Your task to perform on an android device: View the shopping cart on amazon. Add usb-a to usb-b to the cart on amazon, then select checkout. Image 0: 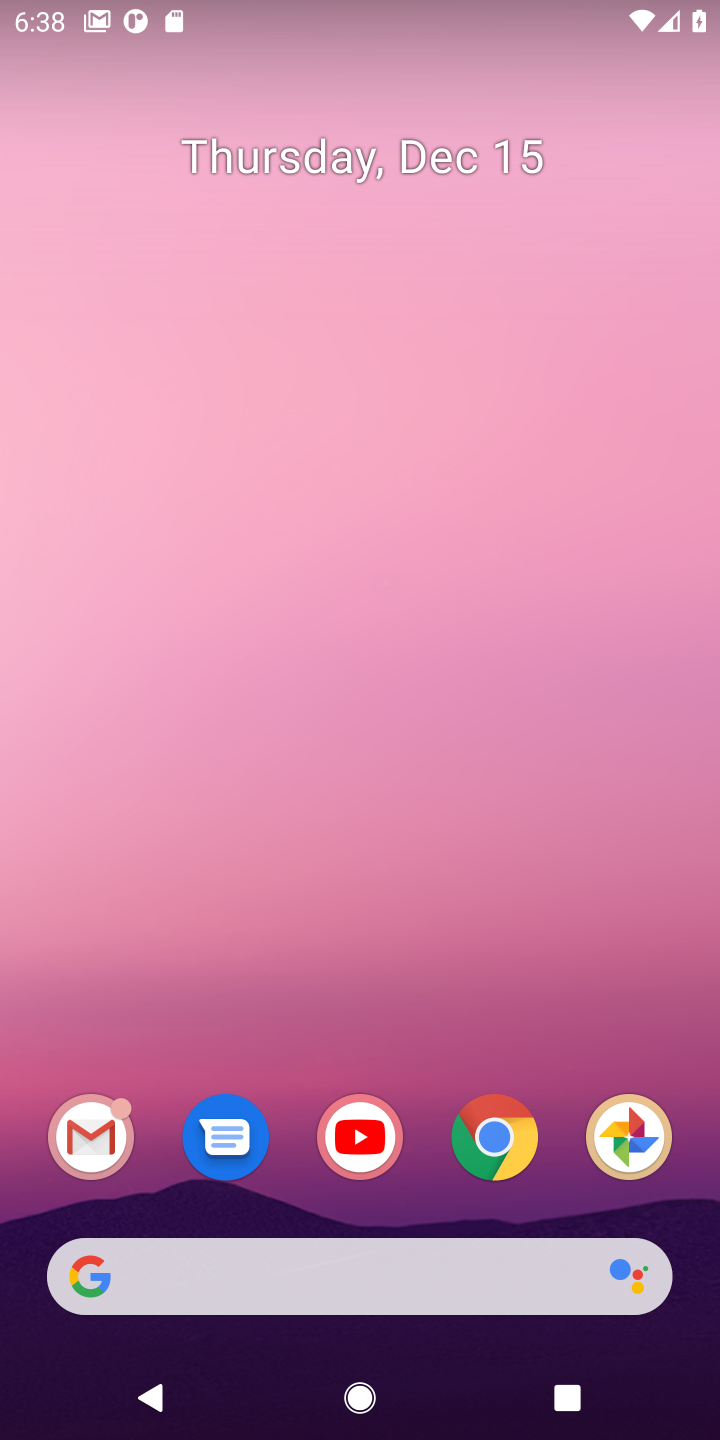
Step 0: click (332, 893)
Your task to perform on an android device: View the shopping cart on amazon. Add usb-a to usb-b to the cart on amazon, then select checkout. Image 1: 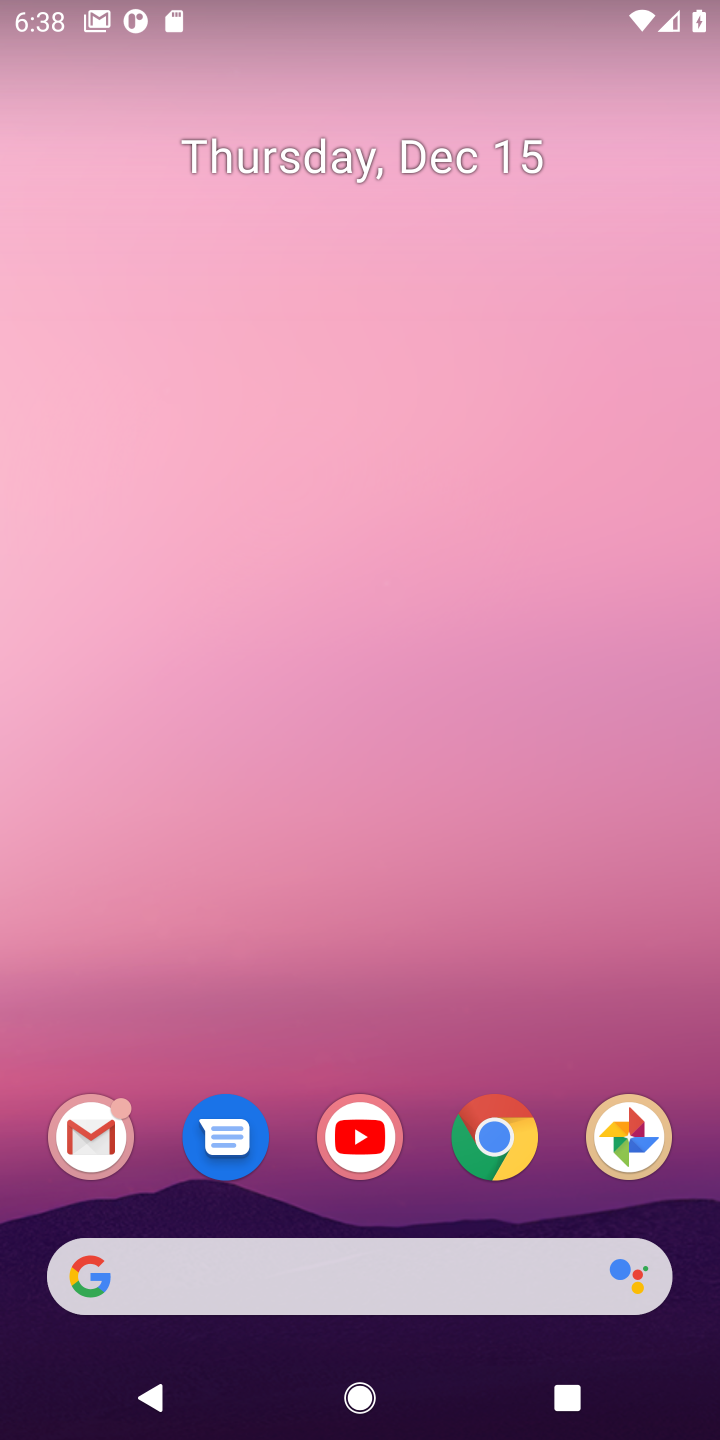
Step 1: drag from (255, 1132) to (261, 84)
Your task to perform on an android device: View the shopping cart on amazon. Add usb-a to usb-b to the cart on amazon, then select checkout. Image 2: 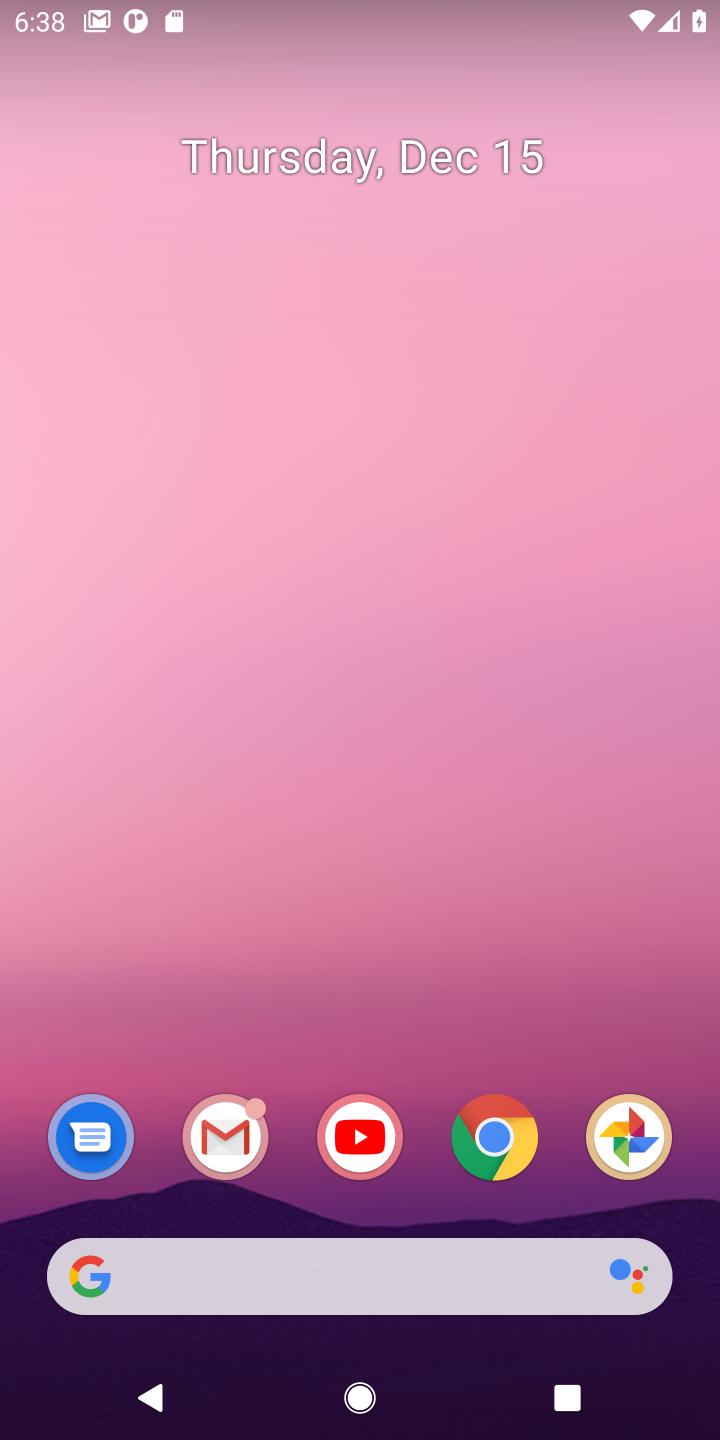
Step 2: drag from (328, 1189) to (312, 401)
Your task to perform on an android device: View the shopping cart on amazon. Add usb-a to usb-b to the cart on amazon, then select checkout. Image 3: 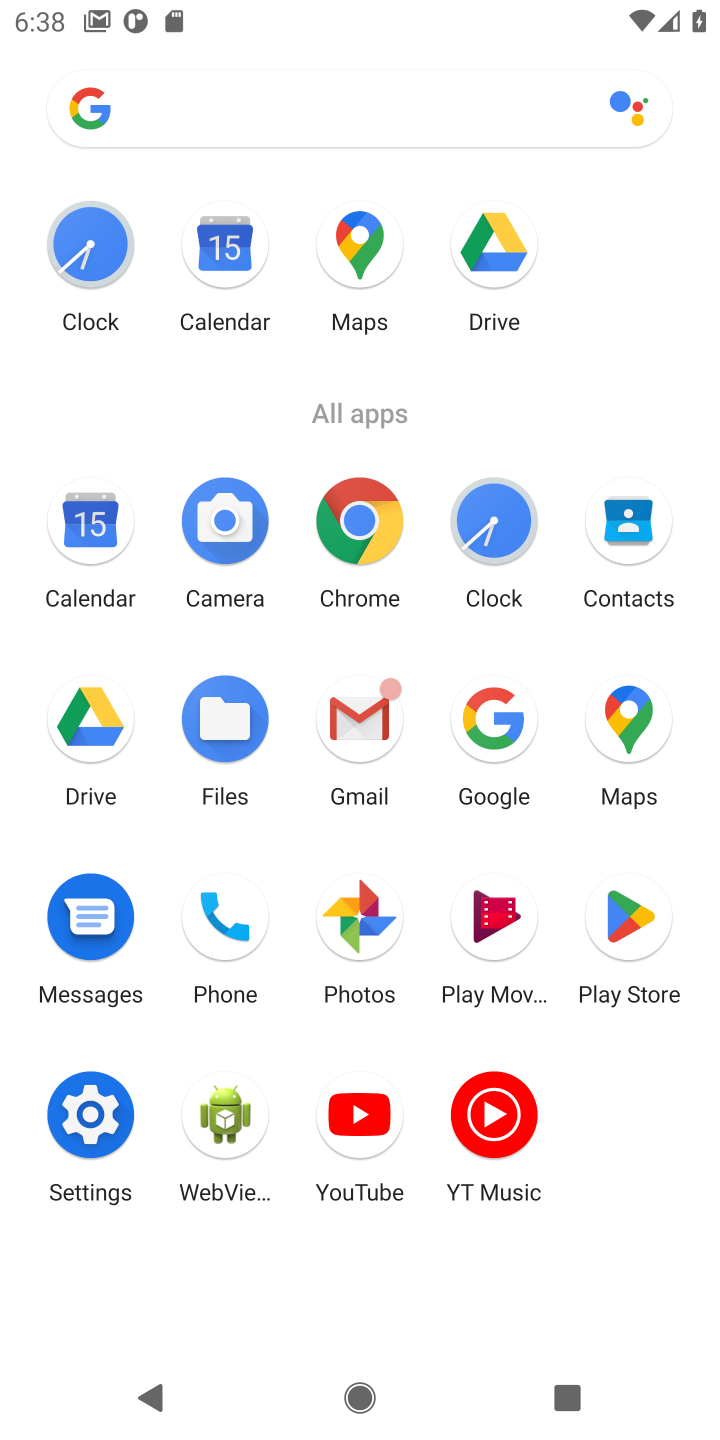
Step 3: click (497, 704)
Your task to perform on an android device: View the shopping cart on amazon. Add usb-a to usb-b to the cart on amazon, then select checkout. Image 4: 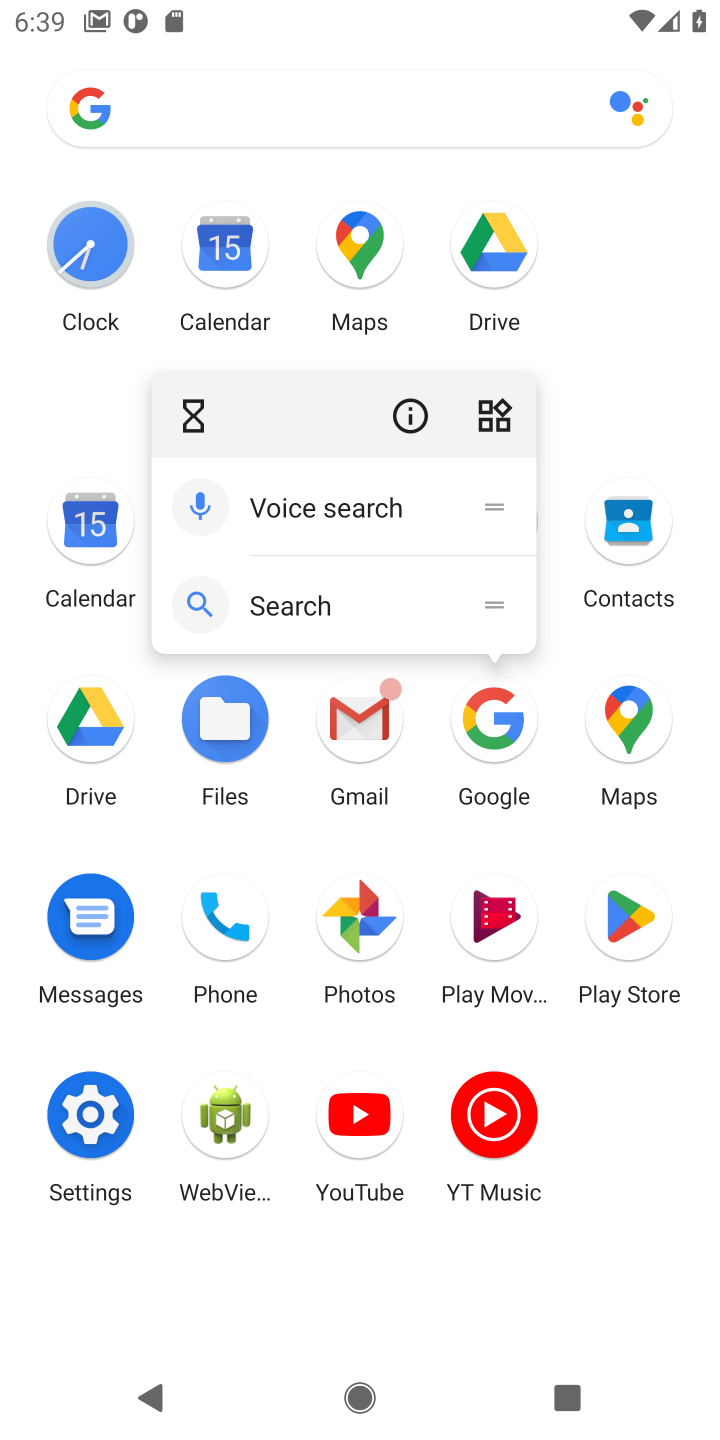
Step 4: press home button
Your task to perform on an android device: View the shopping cart on amazon. Add usb-a to usb-b to the cart on amazon, then select checkout. Image 5: 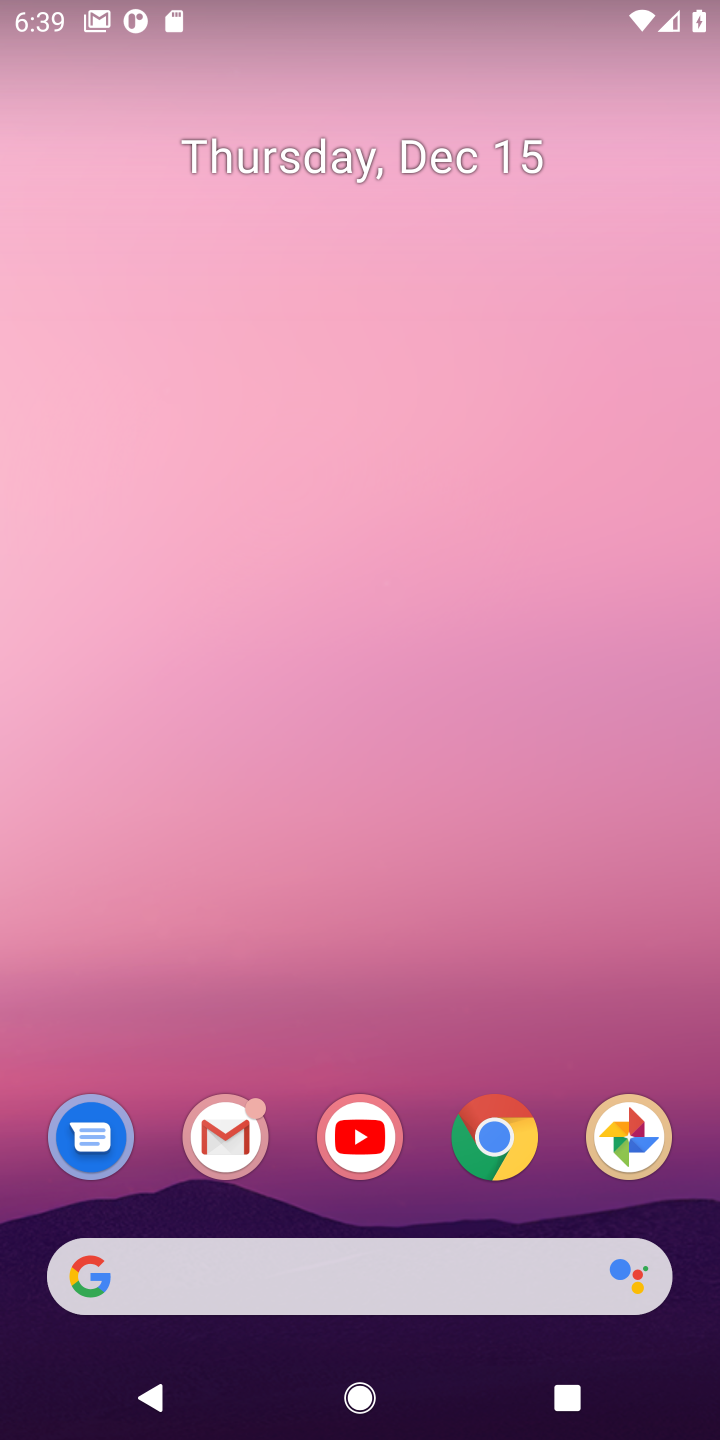
Step 5: drag from (312, 1110) to (381, 183)
Your task to perform on an android device: View the shopping cart on amazon. Add usb-a to usb-b to the cart on amazon, then select checkout. Image 6: 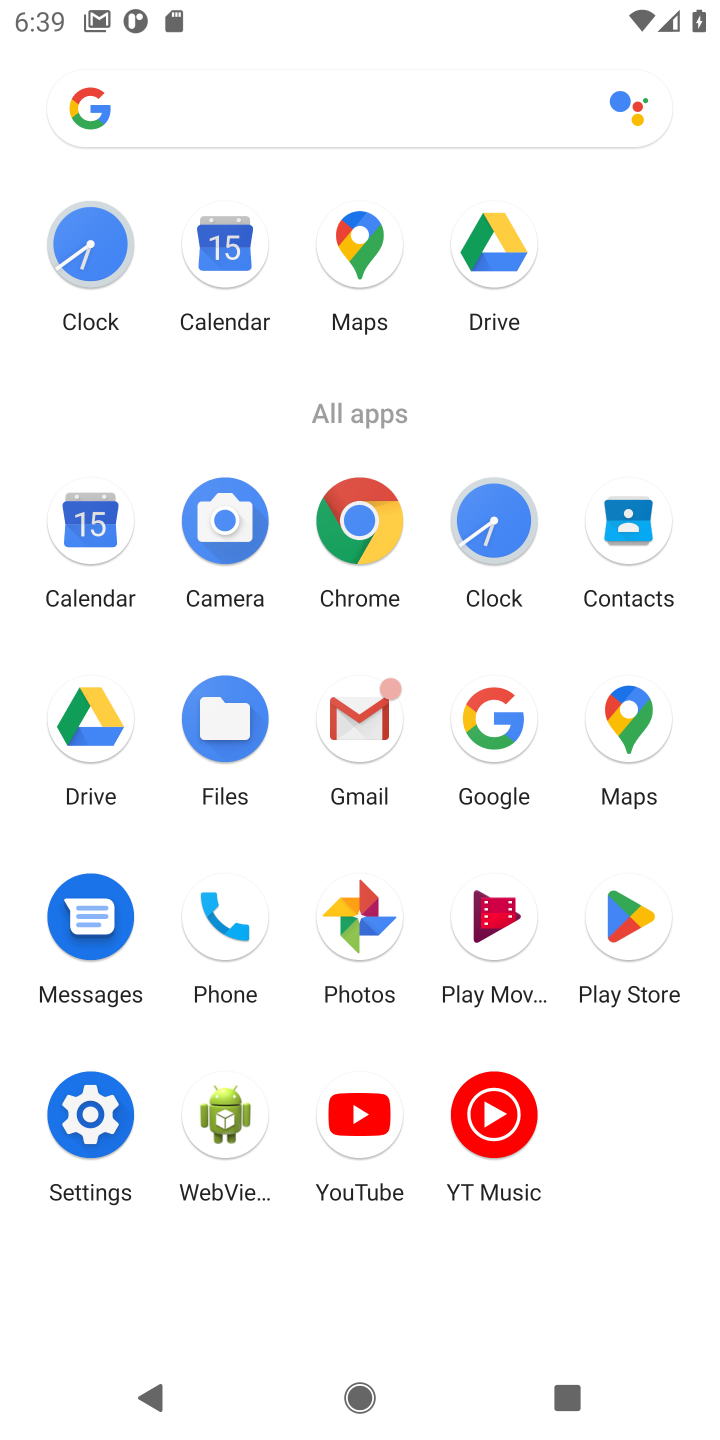
Step 6: click (481, 717)
Your task to perform on an android device: View the shopping cart on amazon. Add usb-a to usb-b to the cart on amazon, then select checkout. Image 7: 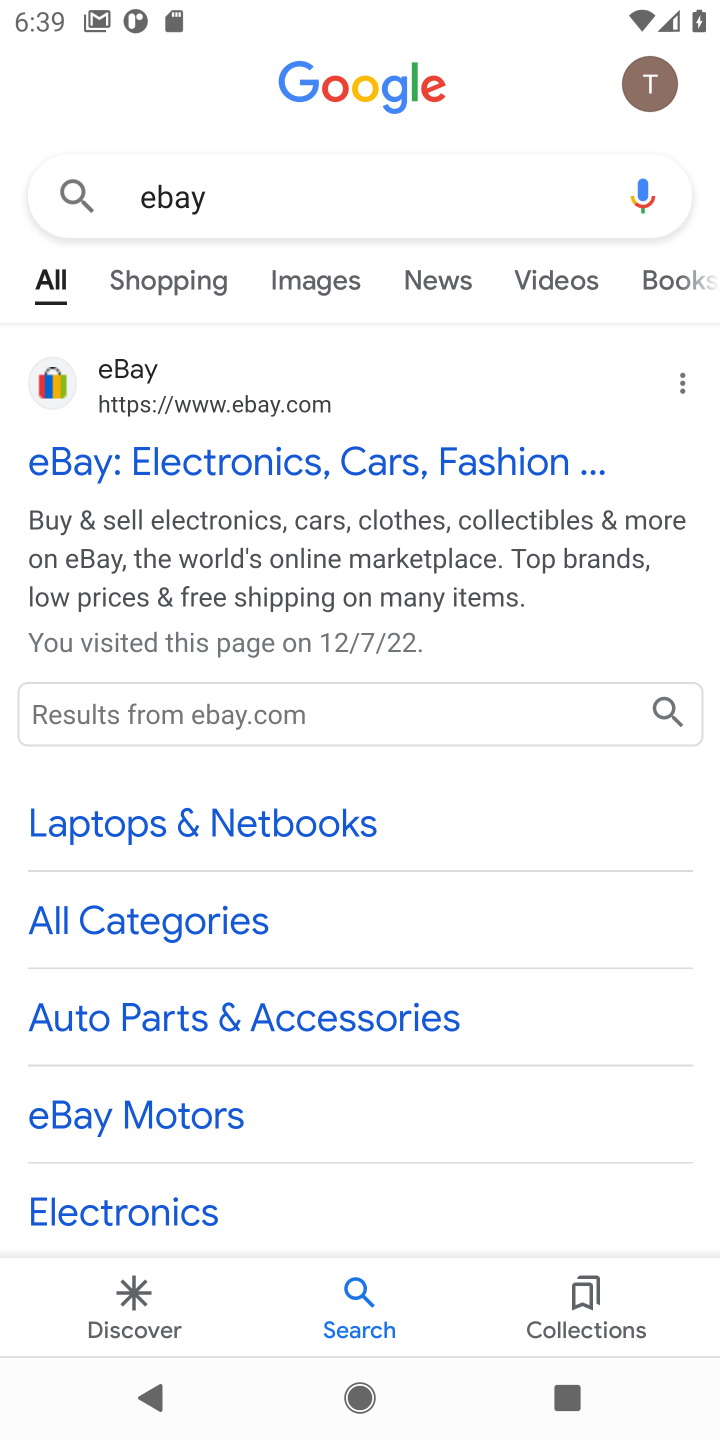
Step 7: click (173, 192)
Your task to perform on an android device: View the shopping cart on amazon. Add usb-a to usb-b to the cart on amazon, then select checkout. Image 8: 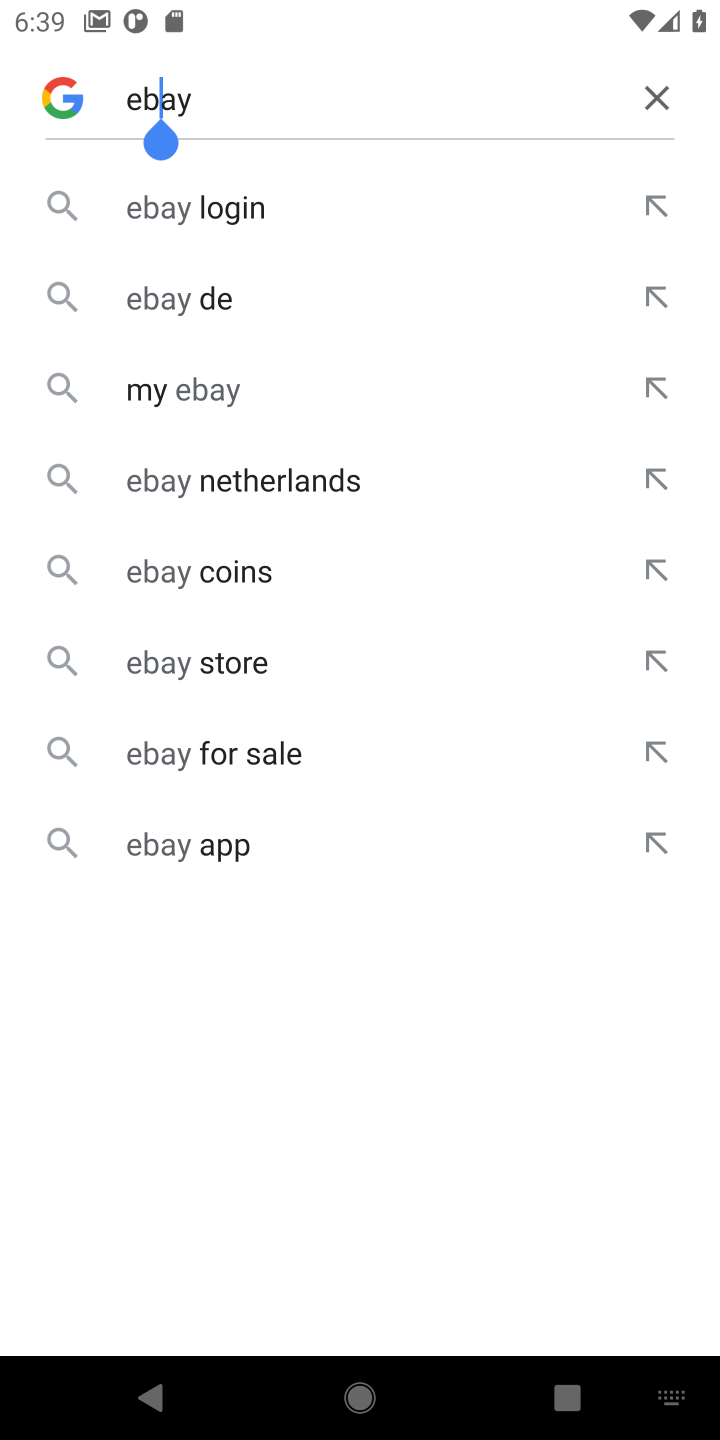
Step 8: click (648, 111)
Your task to perform on an android device: View the shopping cart on amazon. Add usb-a to usb-b to the cart on amazon, then select checkout. Image 9: 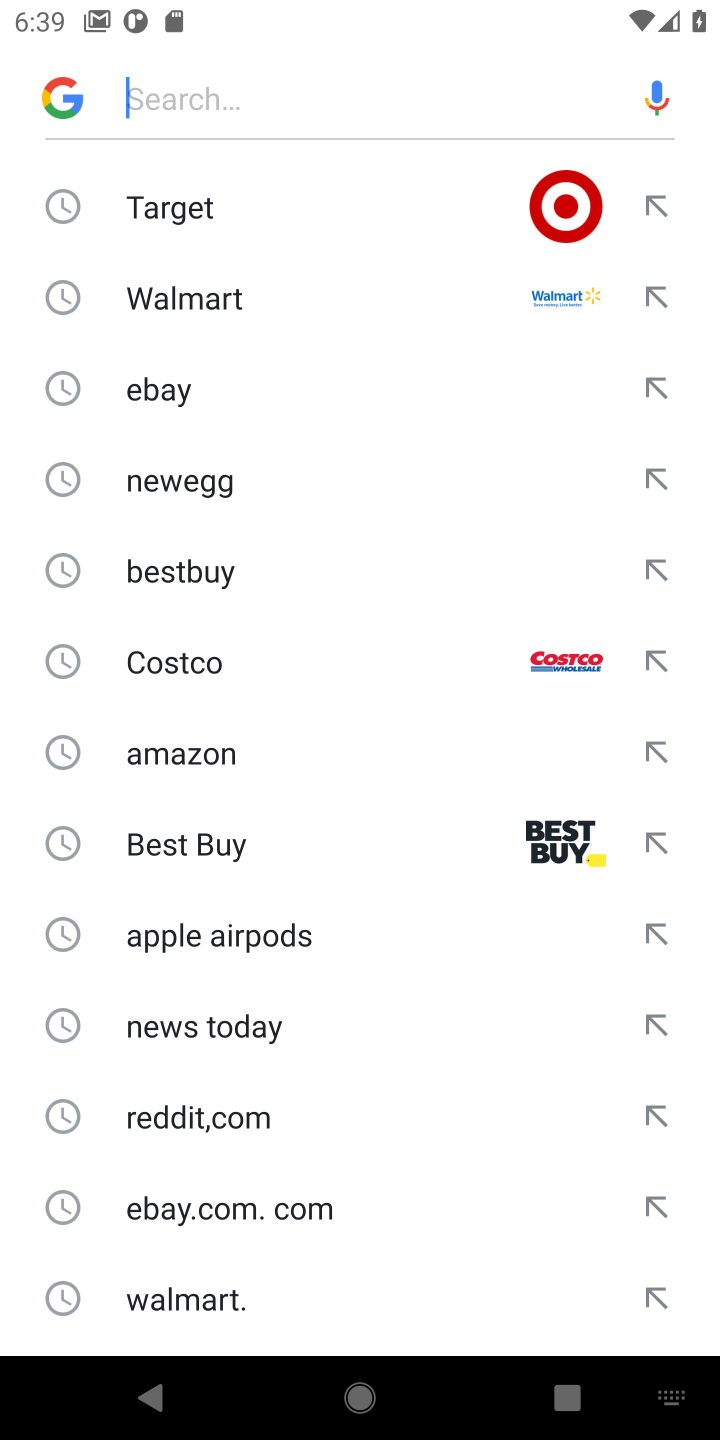
Step 9: click (173, 749)
Your task to perform on an android device: View the shopping cart on amazon. Add usb-a to usb-b to the cart on amazon, then select checkout. Image 10: 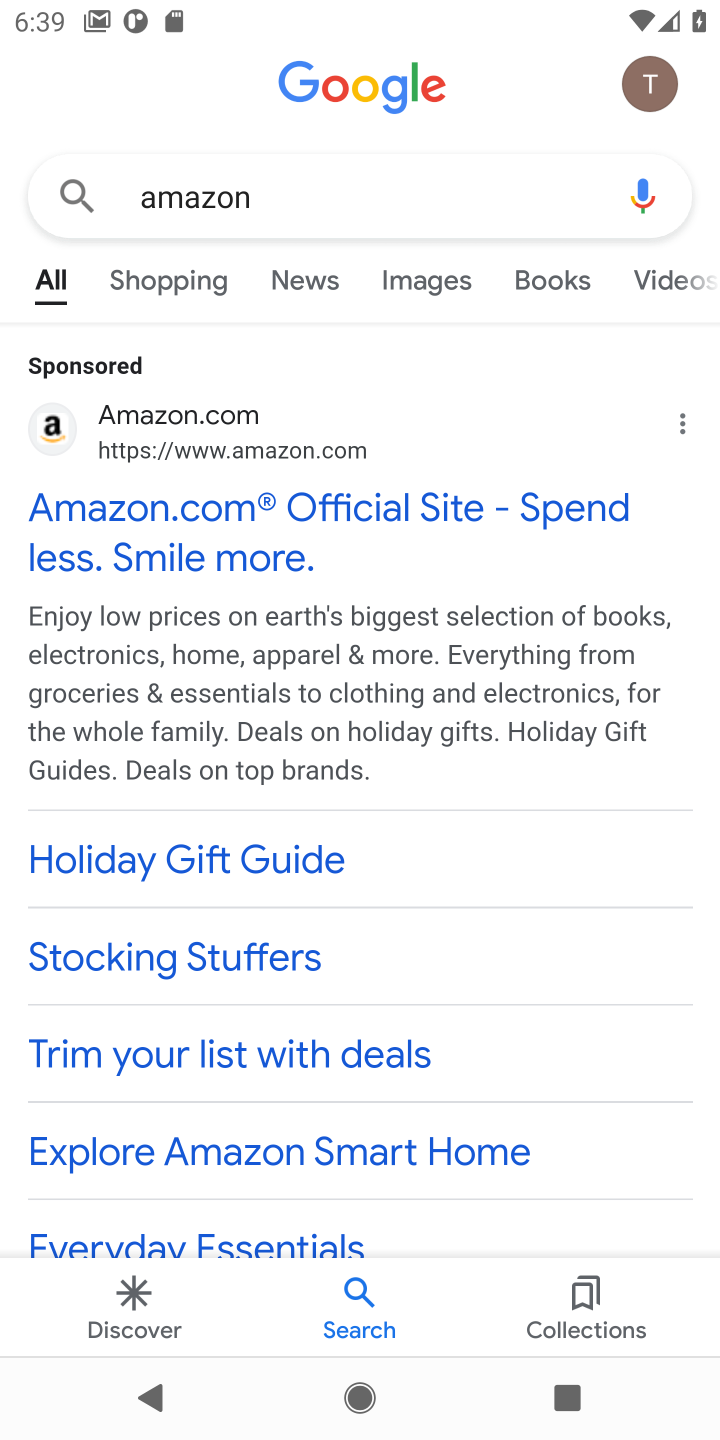
Step 10: click (152, 530)
Your task to perform on an android device: View the shopping cart on amazon. Add usb-a to usb-b to the cart on amazon, then select checkout. Image 11: 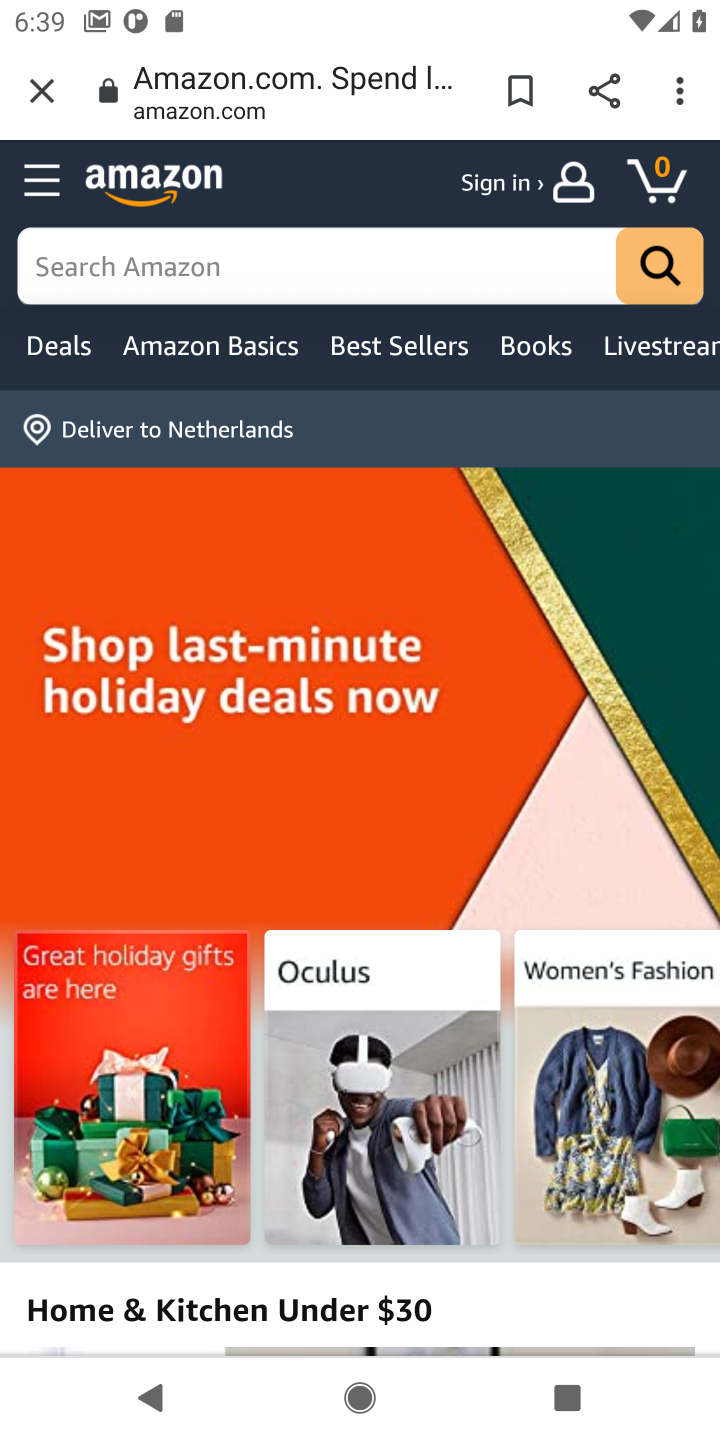
Step 11: click (669, 175)
Your task to perform on an android device: View the shopping cart on amazon. Add usb-a to usb-b to the cart on amazon, then select checkout. Image 12: 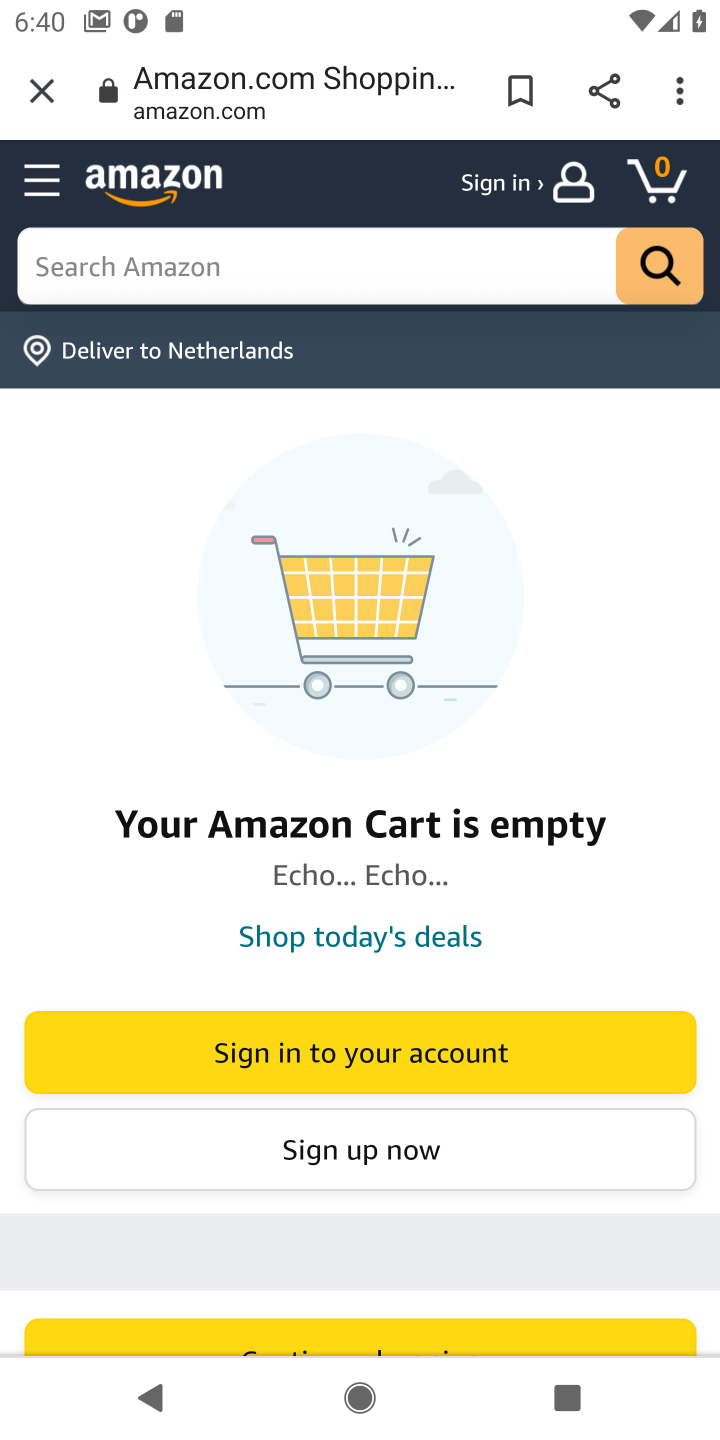
Step 12: click (90, 287)
Your task to perform on an android device: View the shopping cart on amazon. Add usb-a to usb-b to the cart on amazon, then select checkout. Image 13: 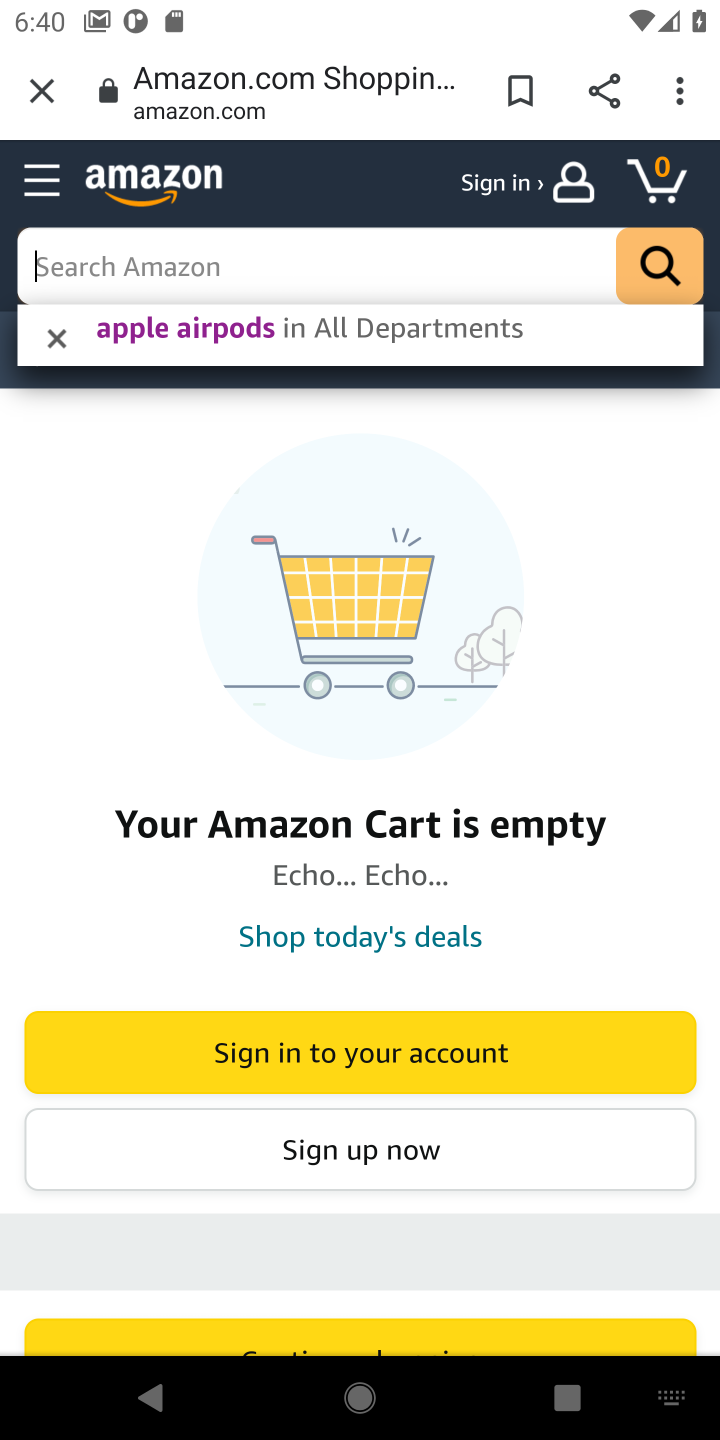
Step 13: type "usb-a to usb-b"
Your task to perform on an android device: View the shopping cart on amazon. Add usb-a to usb-b to the cart on amazon, then select checkout. Image 14: 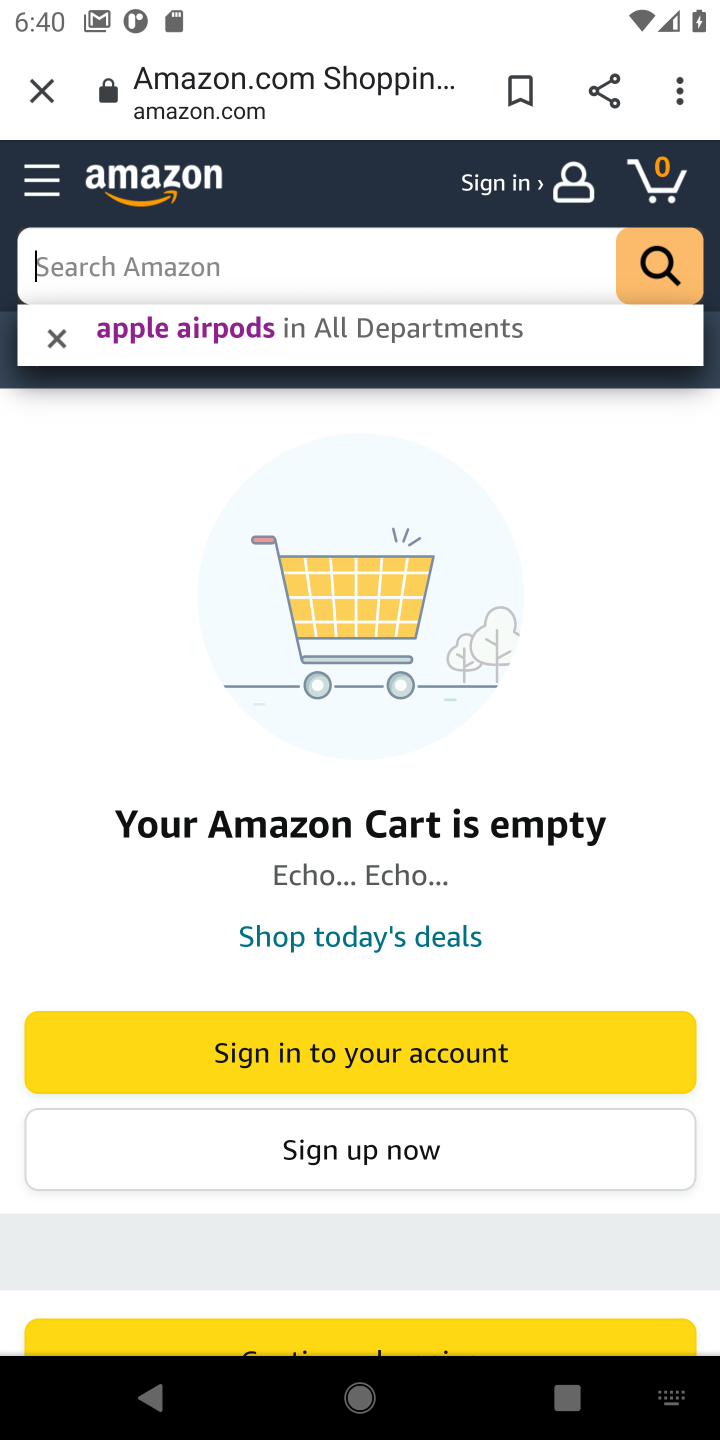
Step 14: click (655, 260)
Your task to perform on an android device: View the shopping cart on amazon. Add usb-a to usb-b to the cart on amazon, then select checkout. Image 15: 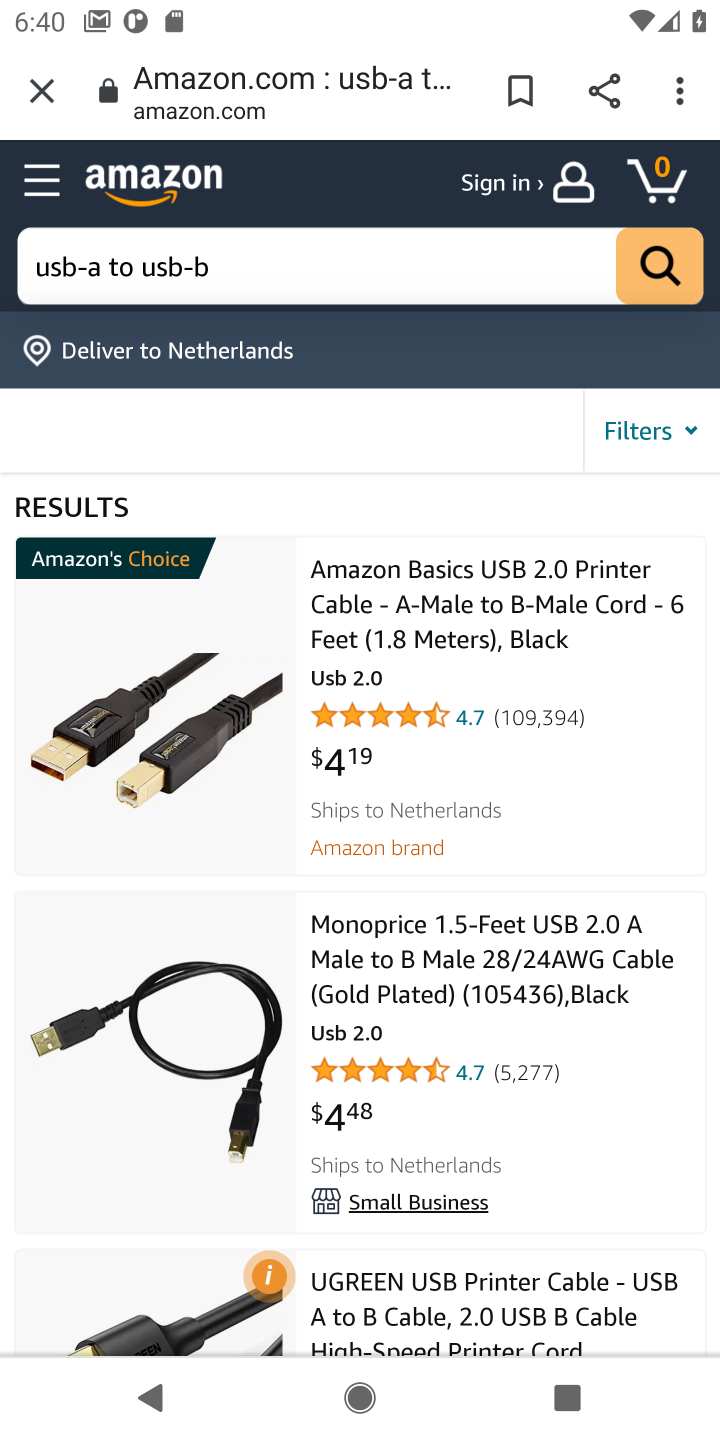
Step 15: click (377, 606)
Your task to perform on an android device: View the shopping cart on amazon. Add usb-a to usb-b to the cart on amazon, then select checkout. Image 16: 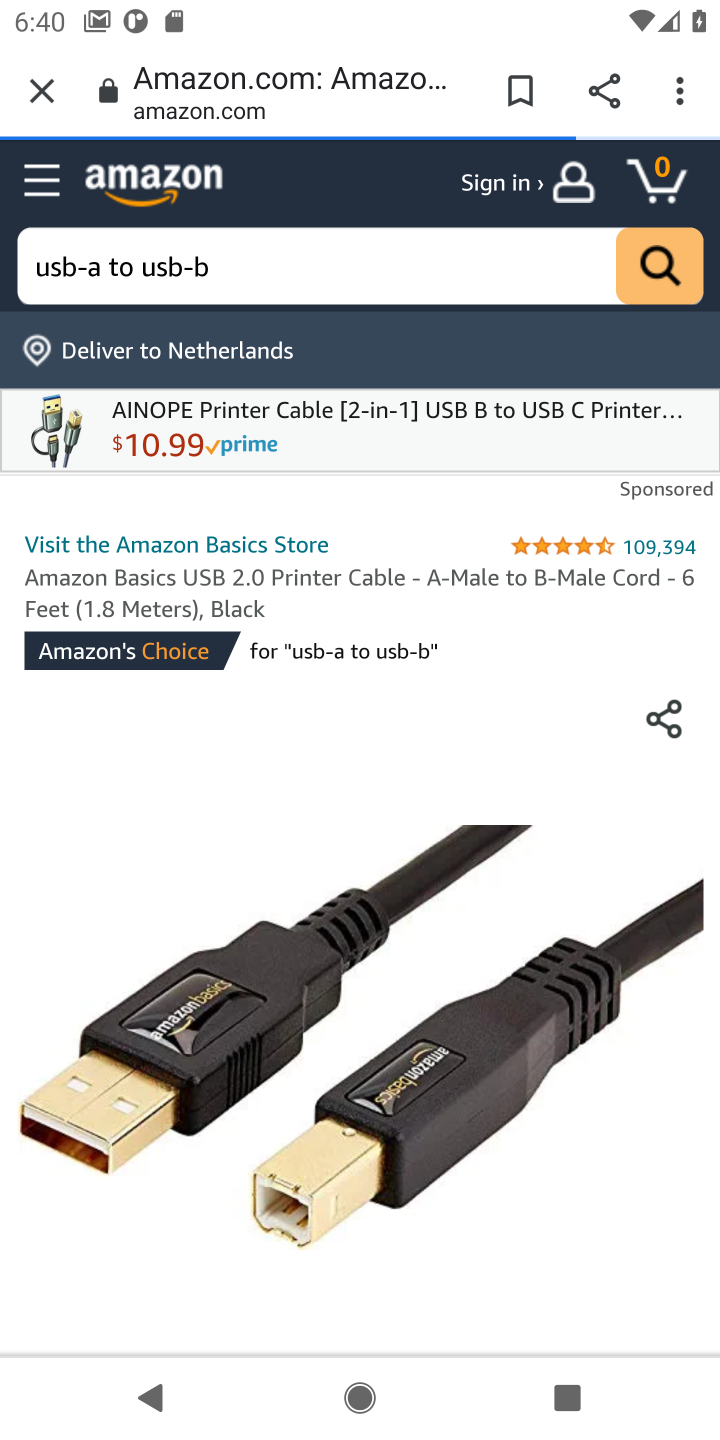
Step 16: drag from (397, 1200) to (384, 555)
Your task to perform on an android device: View the shopping cart on amazon. Add usb-a to usb-b to the cart on amazon, then select checkout. Image 17: 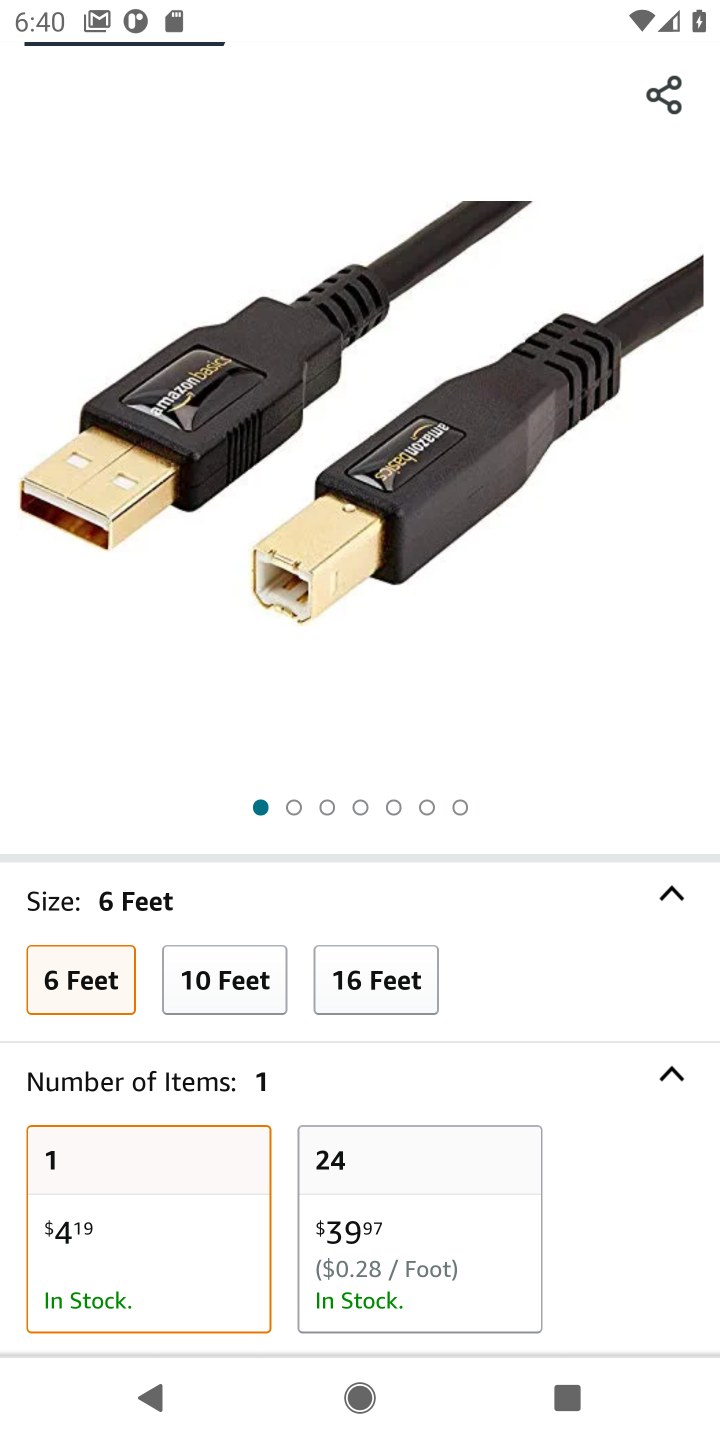
Step 17: drag from (585, 1308) to (519, 461)
Your task to perform on an android device: View the shopping cart on amazon. Add usb-a to usb-b to the cart on amazon, then select checkout. Image 18: 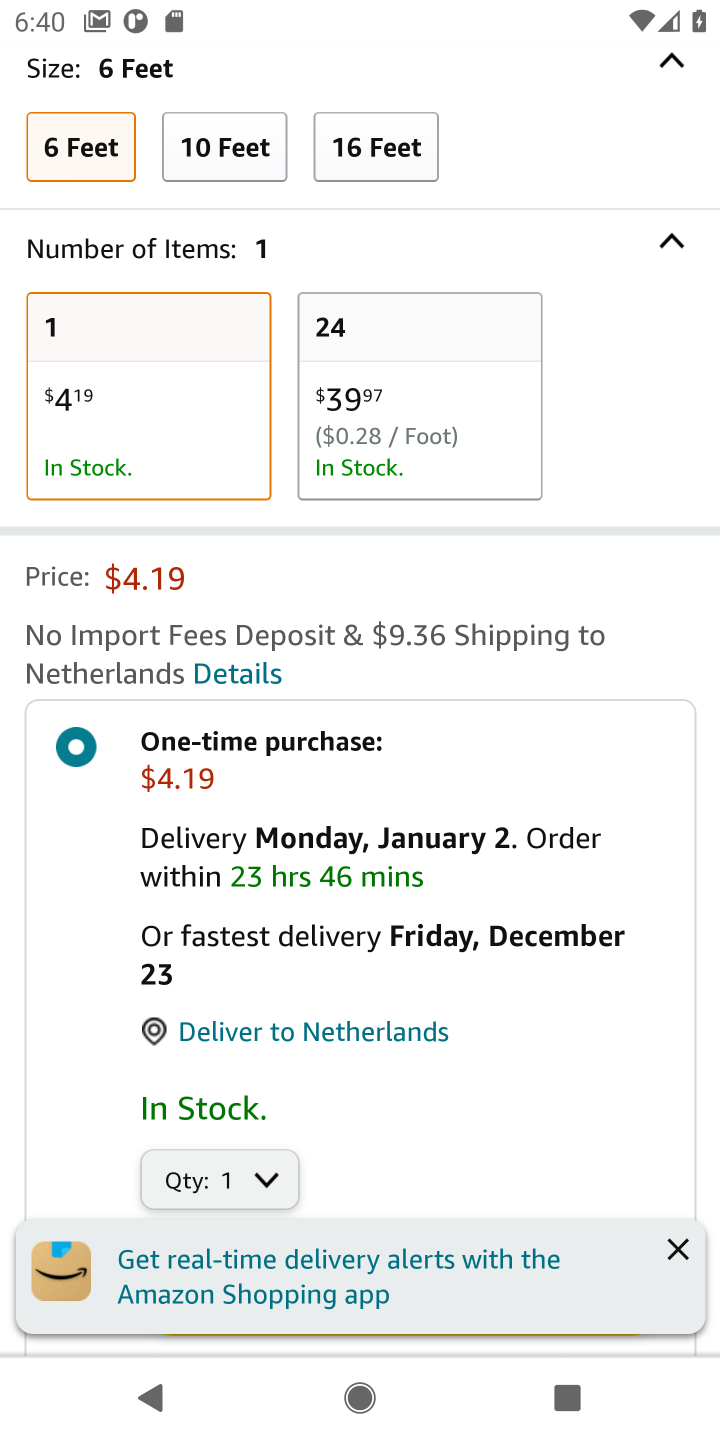
Step 18: drag from (431, 1034) to (431, 520)
Your task to perform on an android device: View the shopping cart on amazon. Add usb-a to usb-b to the cart on amazon, then select checkout. Image 19: 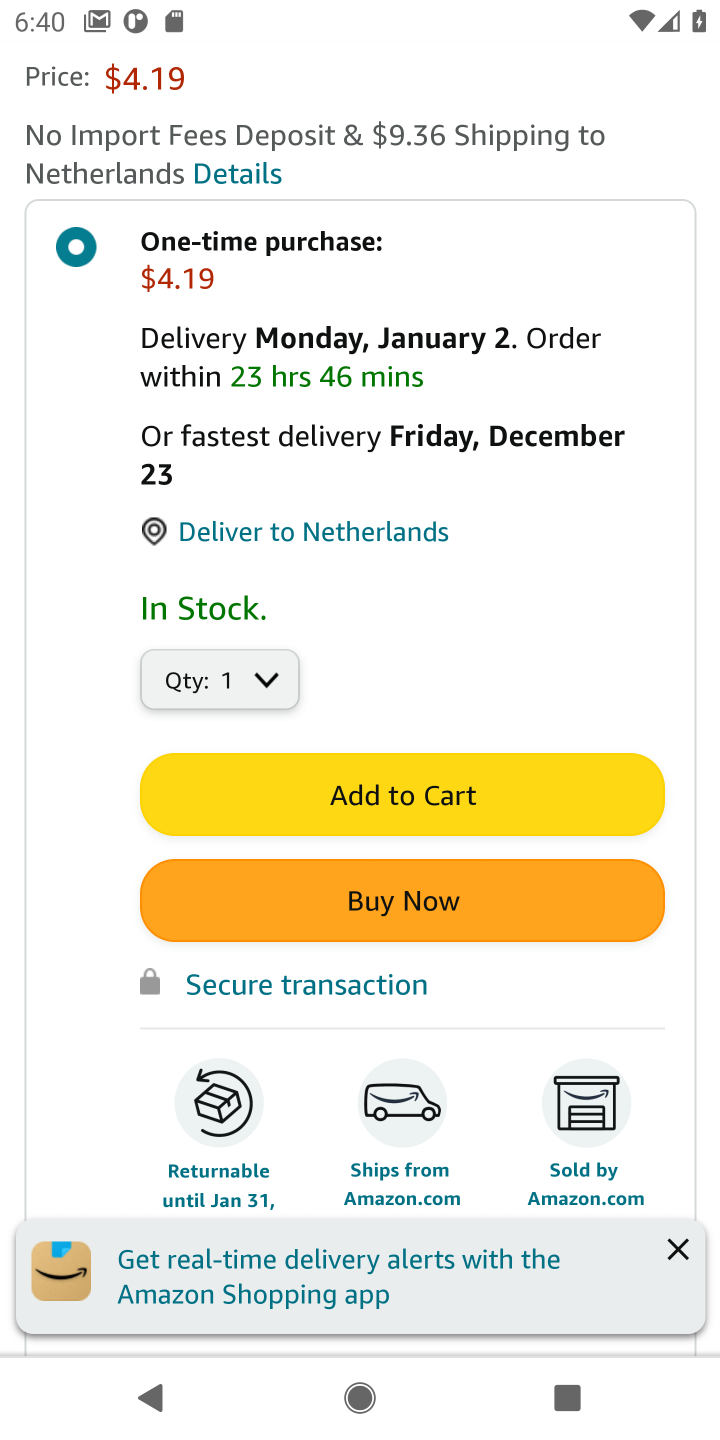
Step 19: click (404, 795)
Your task to perform on an android device: View the shopping cart on amazon. Add usb-a to usb-b to the cart on amazon, then select checkout. Image 20: 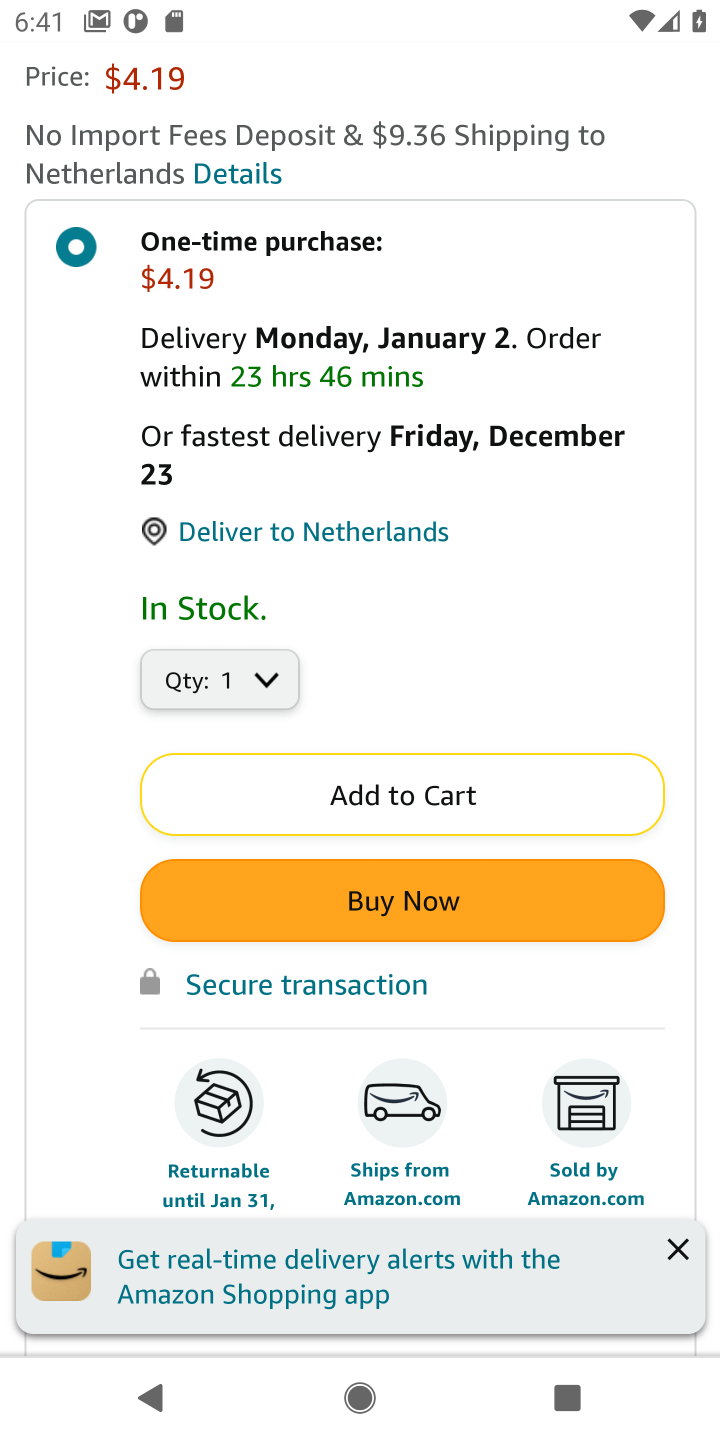
Step 20: drag from (419, 423) to (472, 1145)
Your task to perform on an android device: View the shopping cart on amazon. Add usb-a to usb-b to the cart on amazon, then select checkout. Image 21: 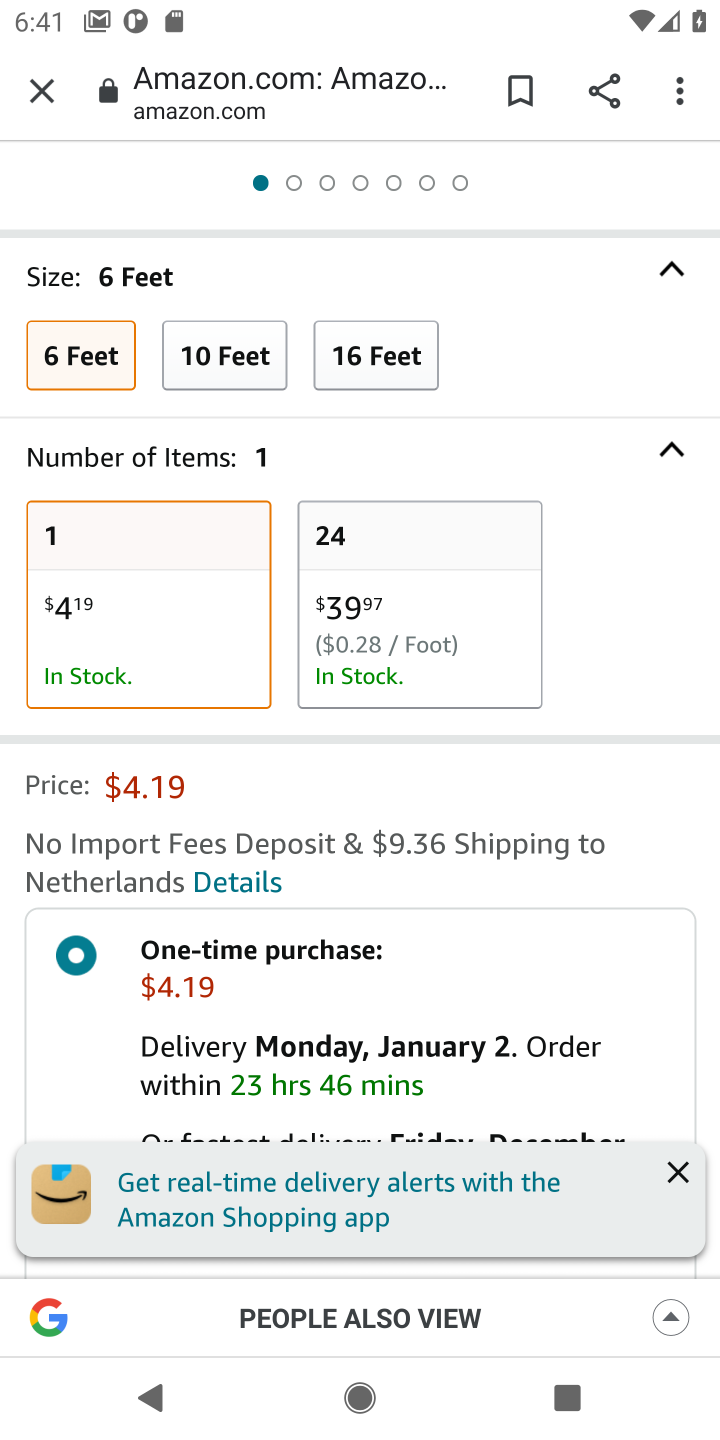
Step 21: drag from (480, 491) to (567, 1109)
Your task to perform on an android device: View the shopping cart on amazon. Add usb-a to usb-b to the cart on amazon, then select checkout. Image 22: 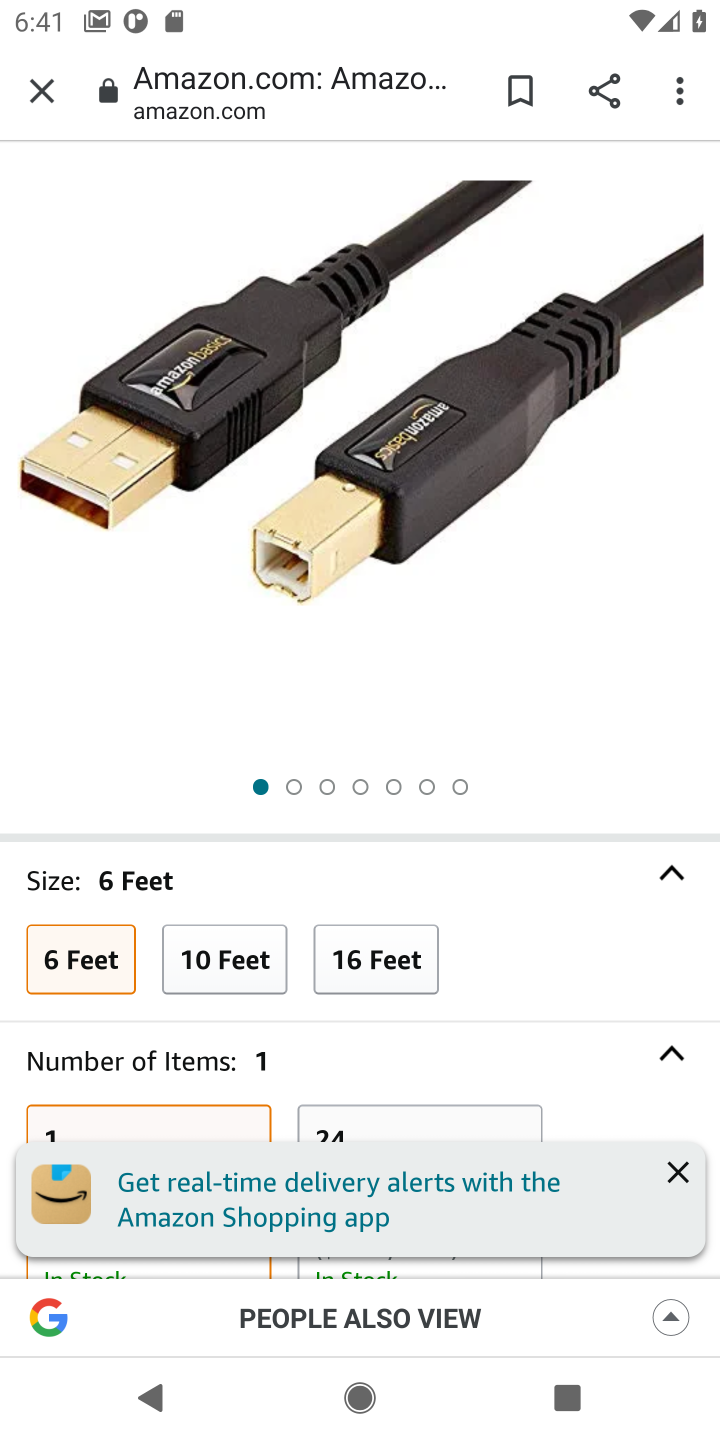
Step 22: drag from (479, 367) to (506, 1126)
Your task to perform on an android device: View the shopping cart on amazon. Add usb-a to usb-b to the cart on amazon, then select checkout. Image 23: 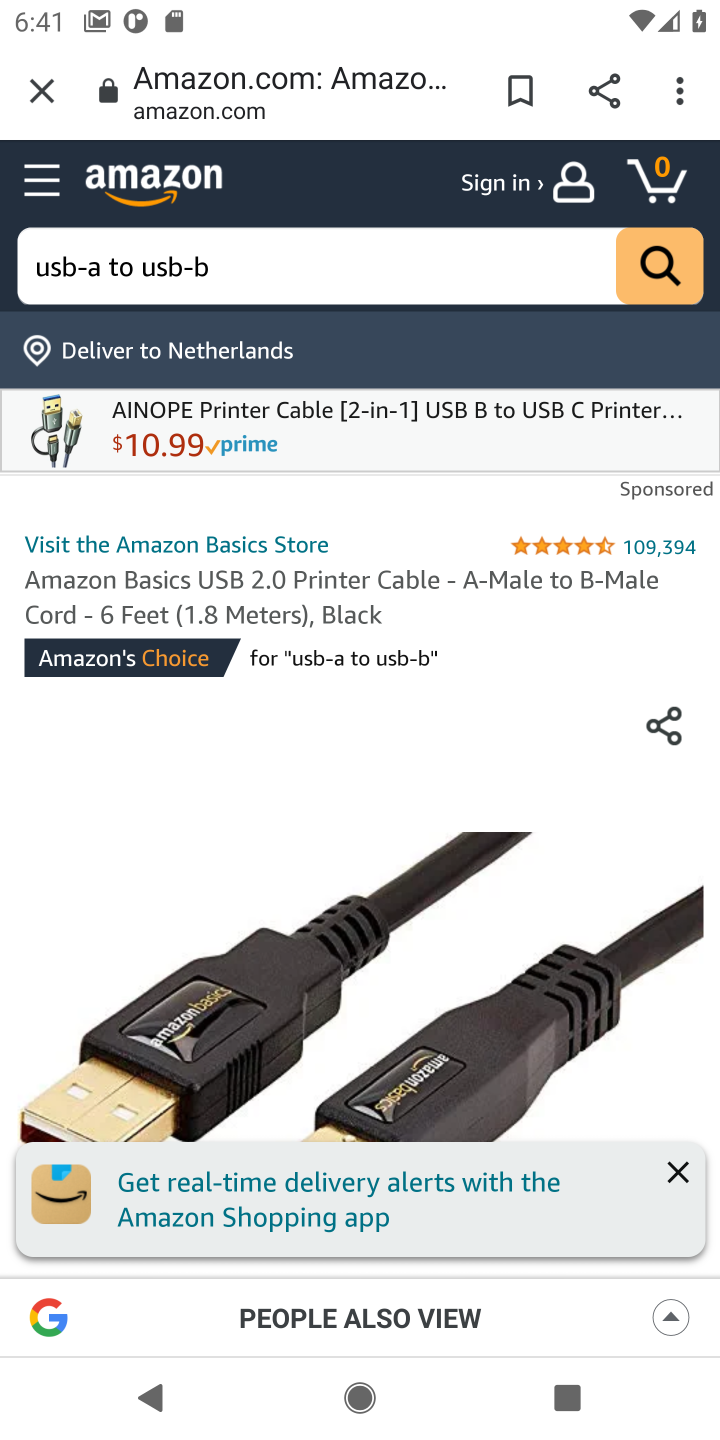
Step 23: drag from (542, 953) to (518, 352)
Your task to perform on an android device: View the shopping cart on amazon. Add usb-a to usb-b to the cart on amazon, then select checkout. Image 24: 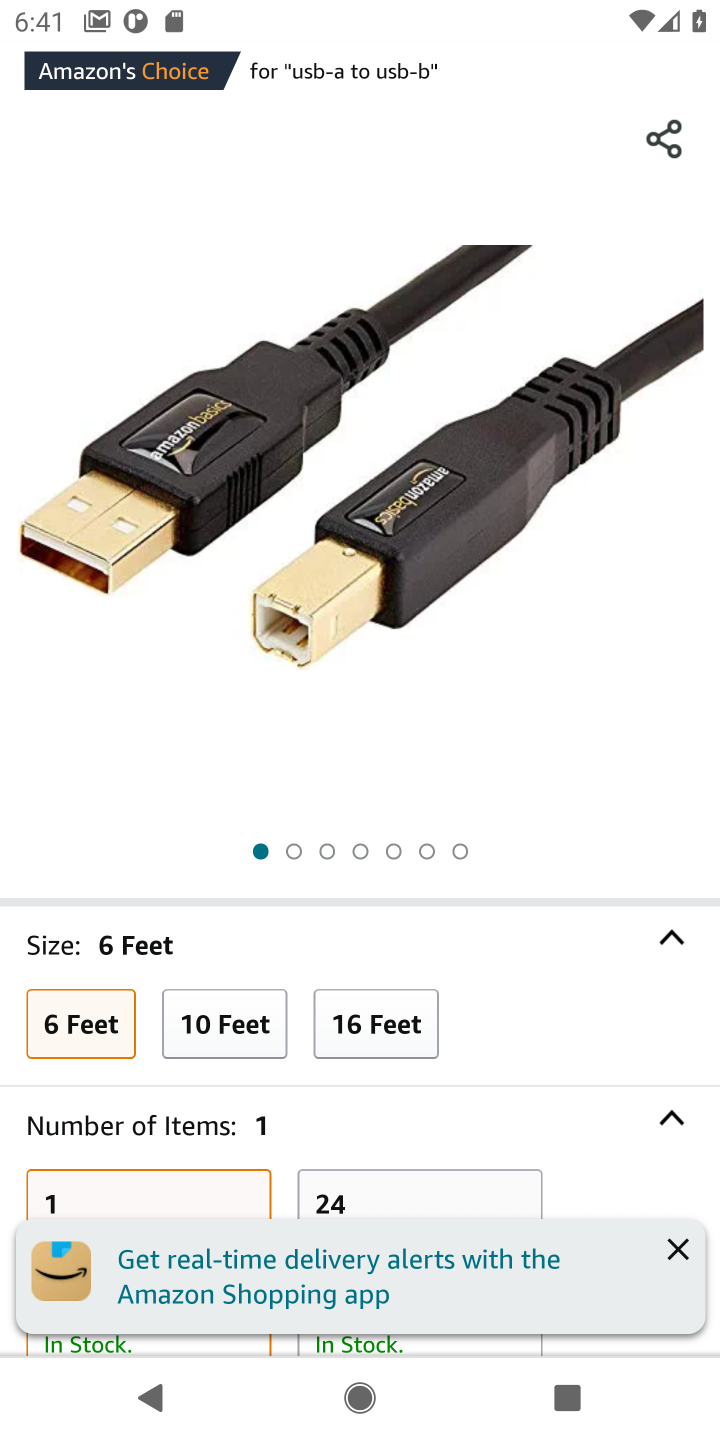
Step 24: drag from (443, 1094) to (382, 517)
Your task to perform on an android device: View the shopping cart on amazon. Add usb-a to usb-b to the cart on amazon, then select checkout. Image 25: 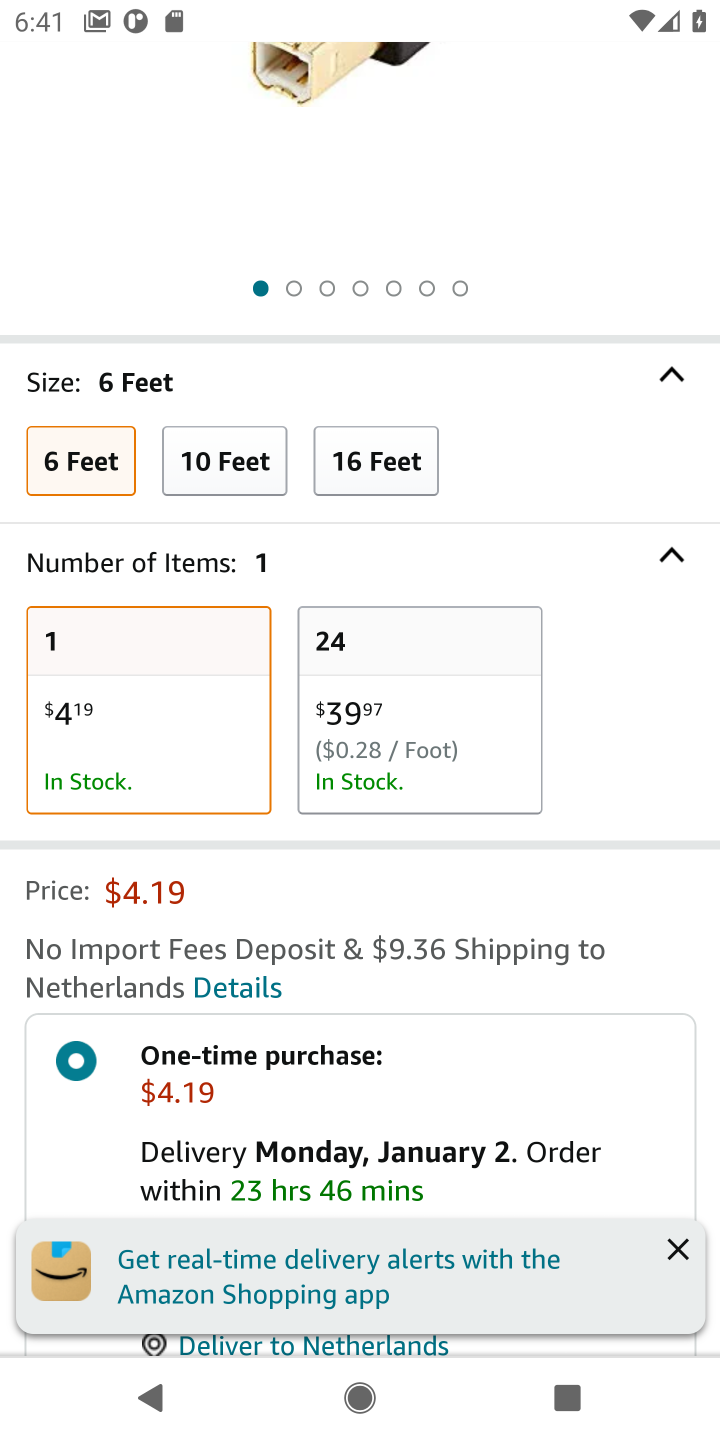
Step 25: drag from (377, 1144) to (305, 490)
Your task to perform on an android device: View the shopping cart on amazon. Add usb-a to usb-b to the cart on amazon, then select checkout. Image 26: 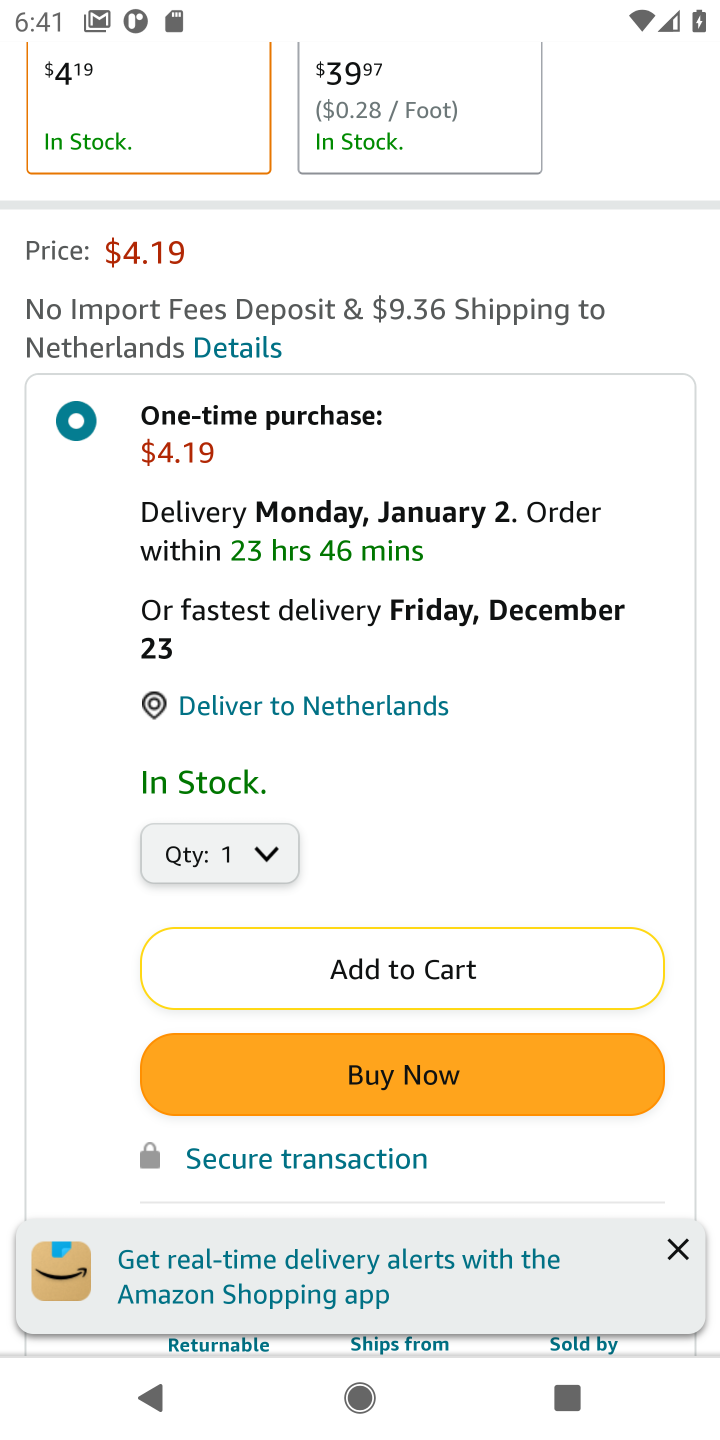
Step 26: click (399, 972)
Your task to perform on an android device: View the shopping cart on amazon. Add usb-a to usb-b to the cart on amazon, then select checkout. Image 27: 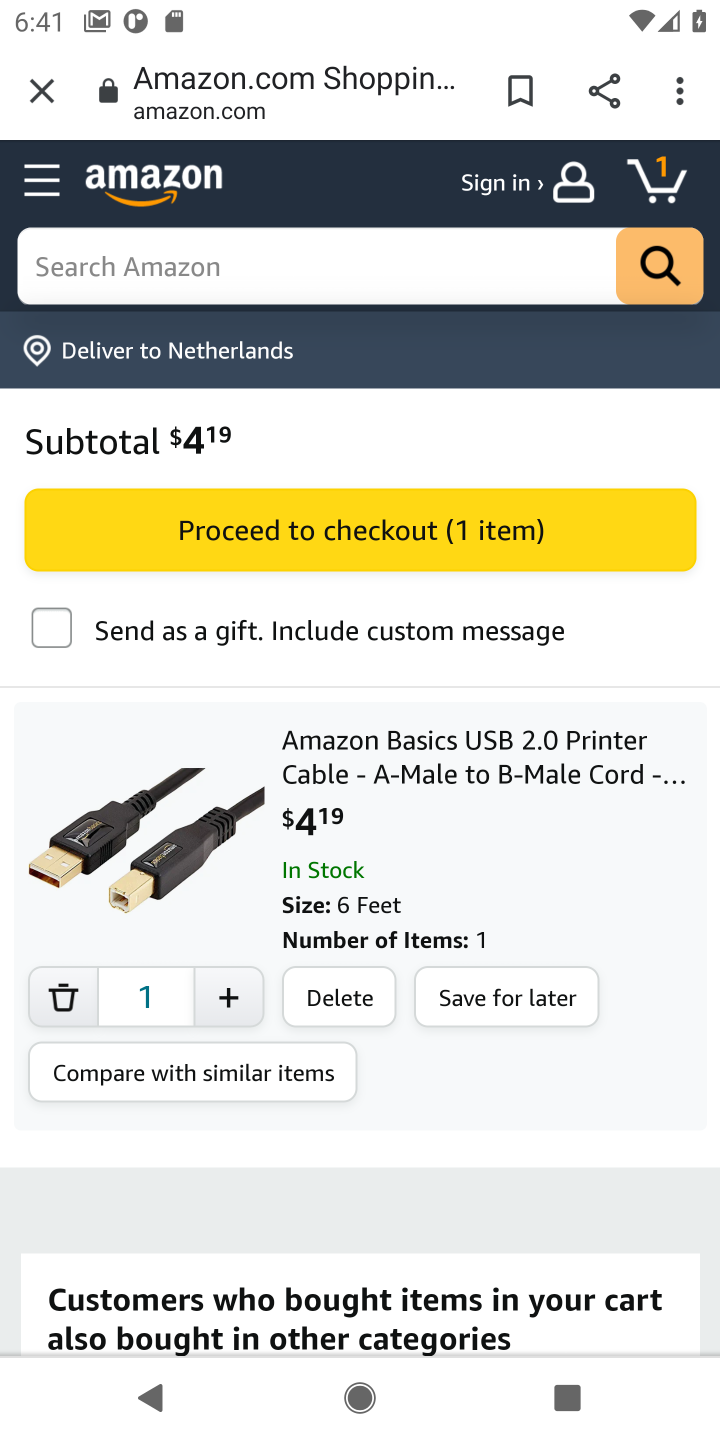
Step 27: click (642, 174)
Your task to perform on an android device: View the shopping cart on amazon. Add usb-a to usb-b to the cart on amazon, then select checkout. Image 28: 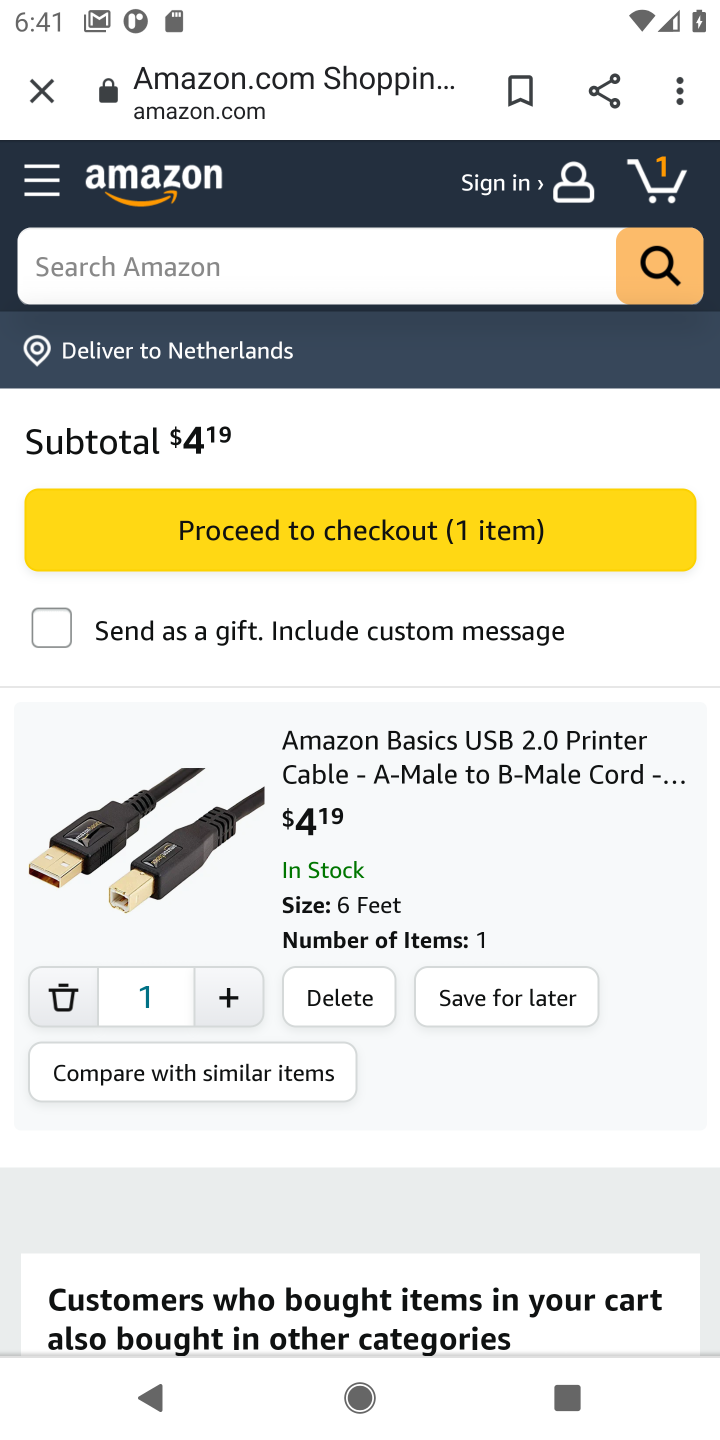
Step 28: click (407, 532)
Your task to perform on an android device: View the shopping cart on amazon. Add usb-a to usb-b to the cart on amazon, then select checkout. Image 29: 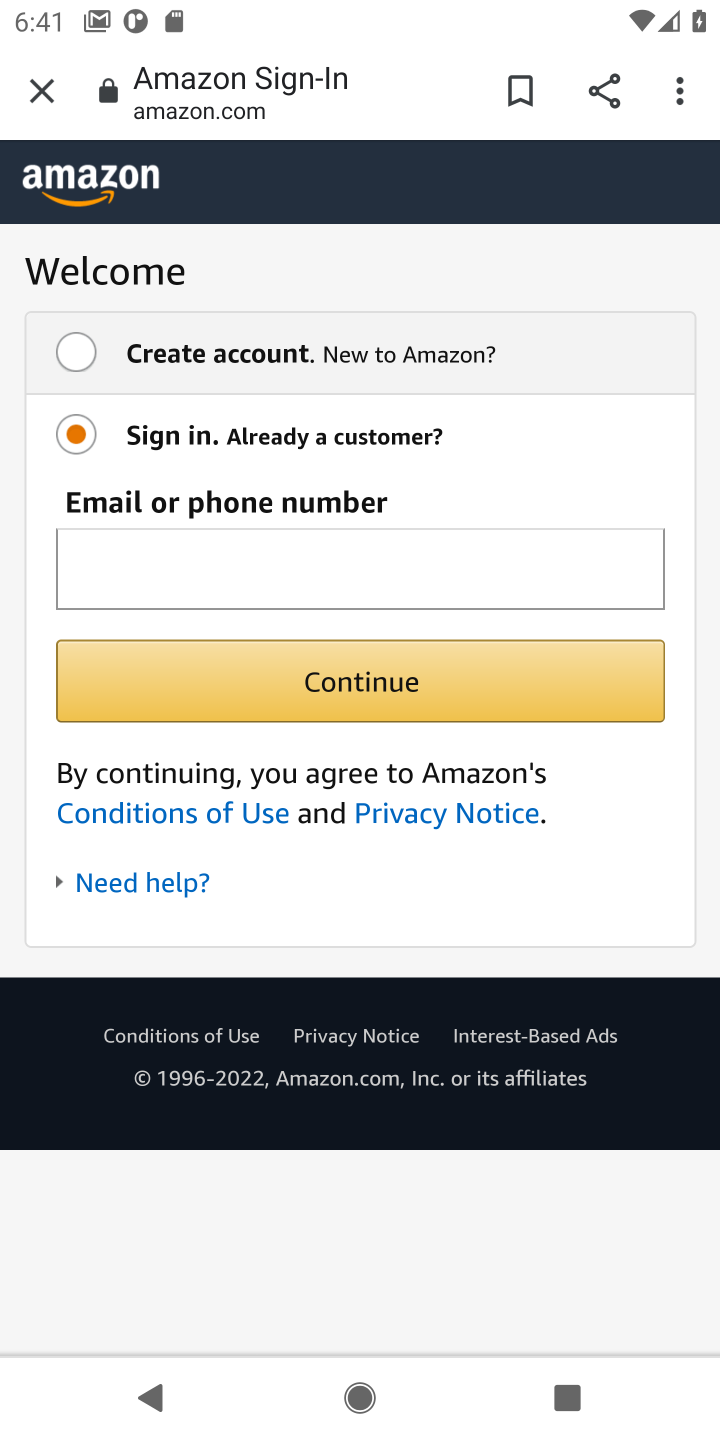
Step 29: task complete